Your task to perform on an android device: delete a single message in the gmail app Image 0: 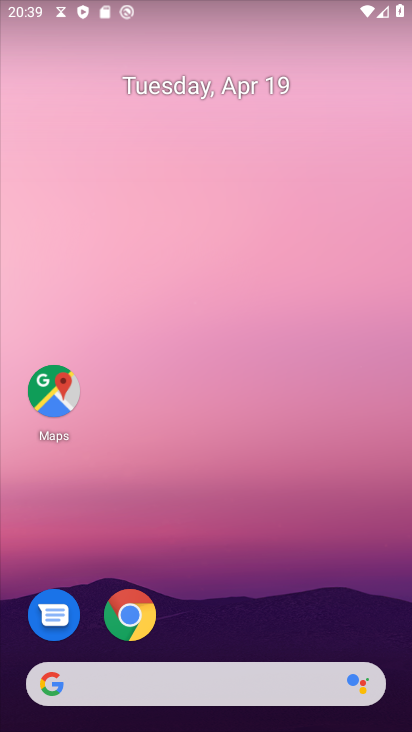
Step 0: drag from (396, 657) to (318, 50)
Your task to perform on an android device: delete a single message in the gmail app Image 1: 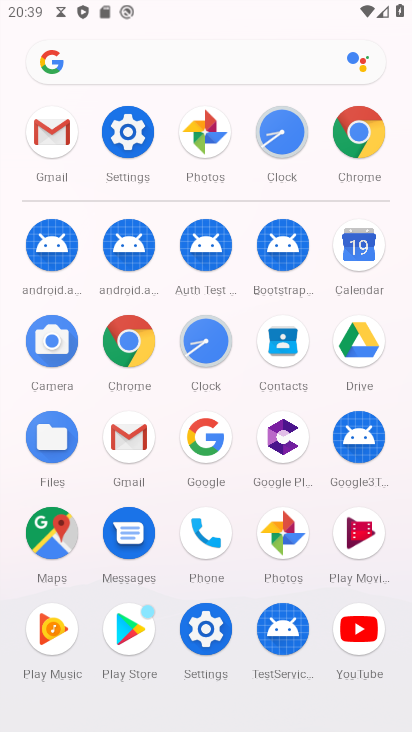
Step 1: click (128, 432)
Your task to perform on an android device: delete a single message in the gmail app Image 2: 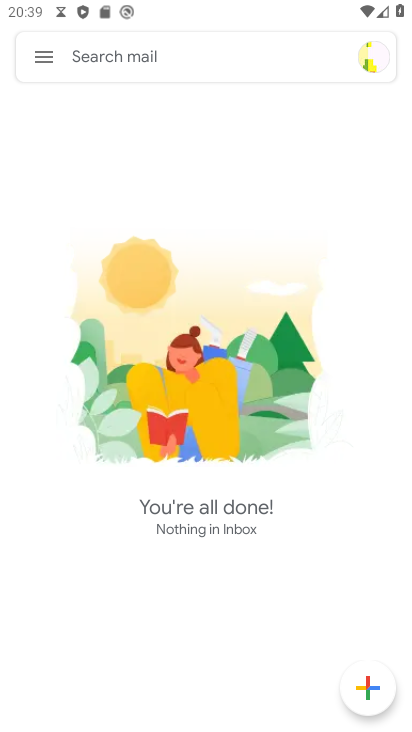
Step 2: click (42, 60)
Your task to perform on an android device: delete a single message in the gmail app Image 3: 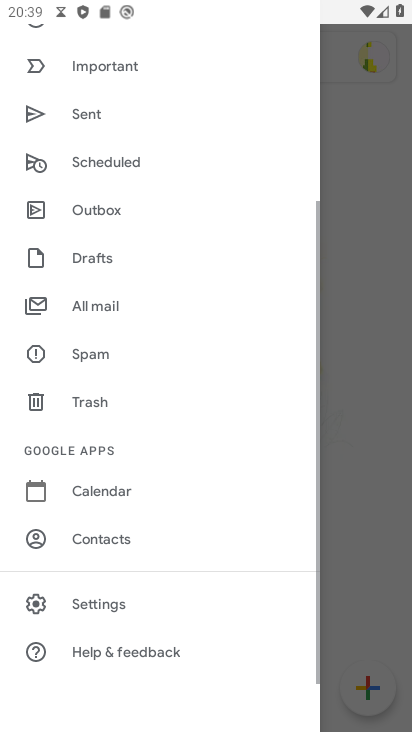
Step 3: drag from (186, 176) to (182, 479)
Your task to perform on an android device: delete a single message in the gmail app Image 4: 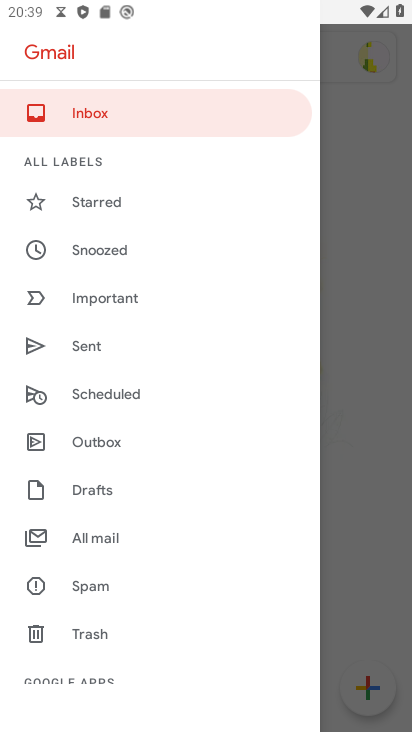
Step 4: click (123, 528)
Your task to perform on an android device: delete a single message in the gmail app Image 5: 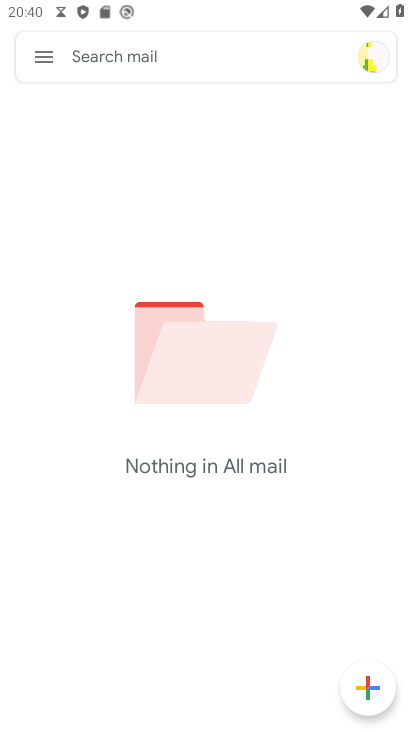
Step 5: task complete